Your task to perform on an android device: star an email in the gmail app Image 0: 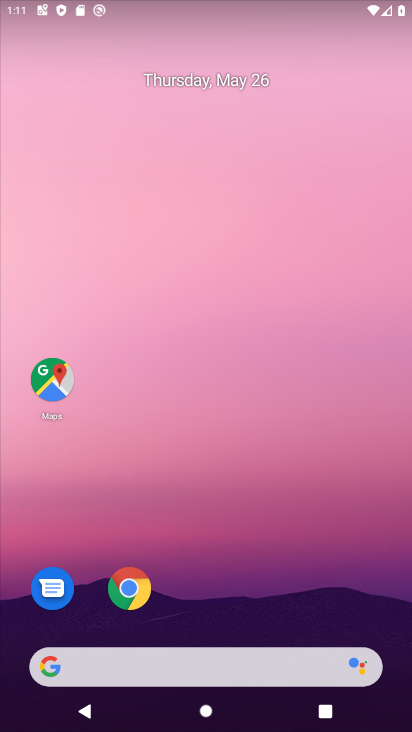
Step 0: drag from (395, 701) to (312, 259)
Your task to perform on an android device: star an email in the gmail app Image 1: 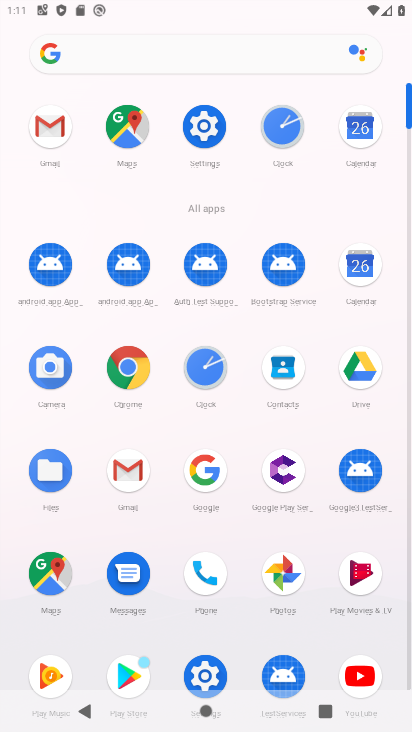
Step 1: click (48, 125)
Your task to perform on an android device: star an email in the gmail app Image 2: 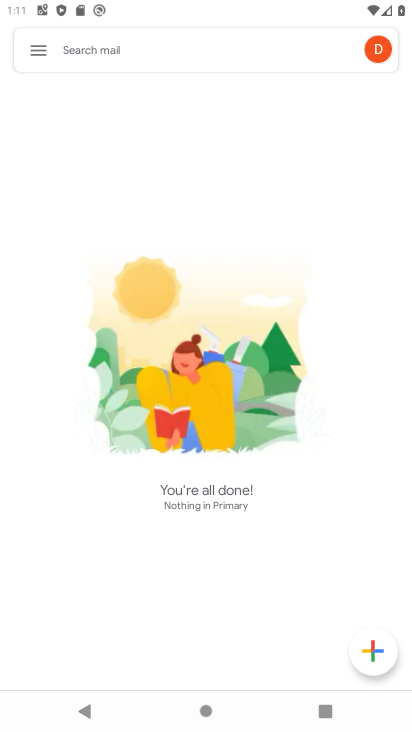
Step 2: click (41, 54)
Your task to perform on an android device: star an email in the gmail app Image 3: 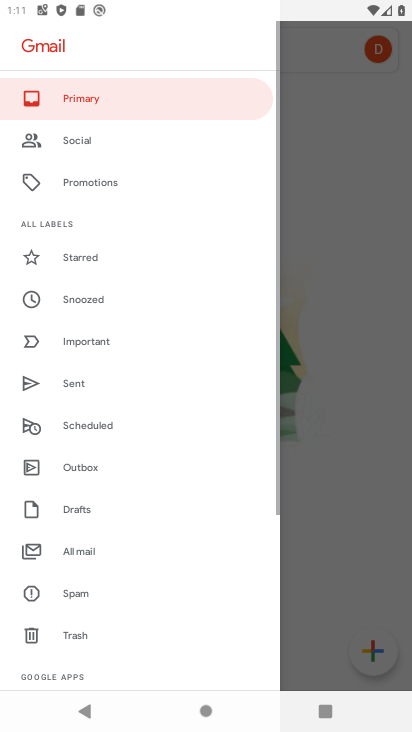
Step 3: click (86, 101)
Your task to perform on an android device: star an email in the gmail app Image 4: 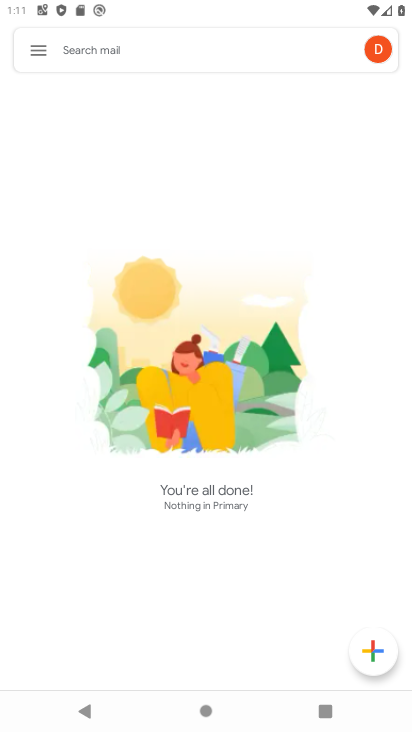
Step 4: task complete